Your task to perform on an android device: Add razer kraken to the cart on costco, then select checkout. Image 0: 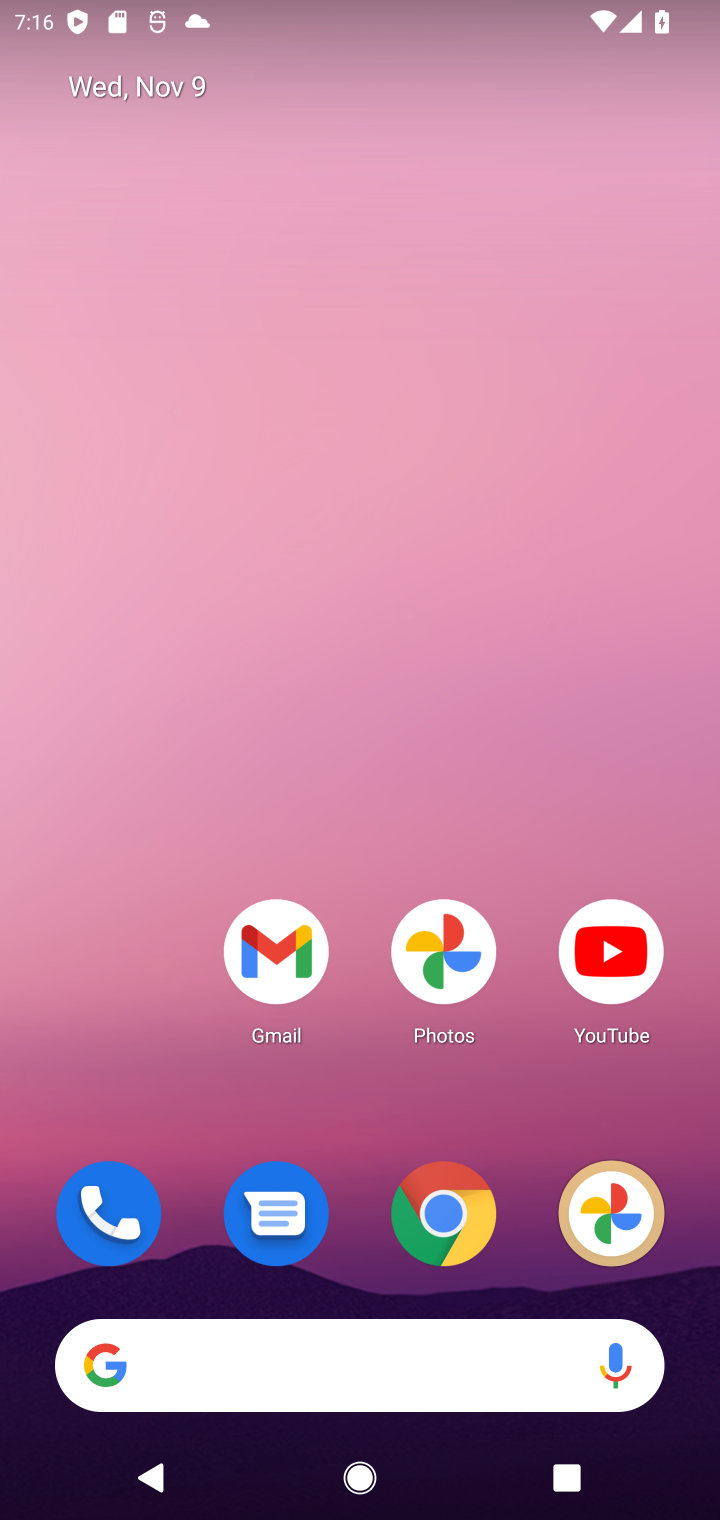
Step 0: click (470, 1213)
Your task to perform on an android device: Add razer kraken to the cart on costco, then select checkout. Image 1: 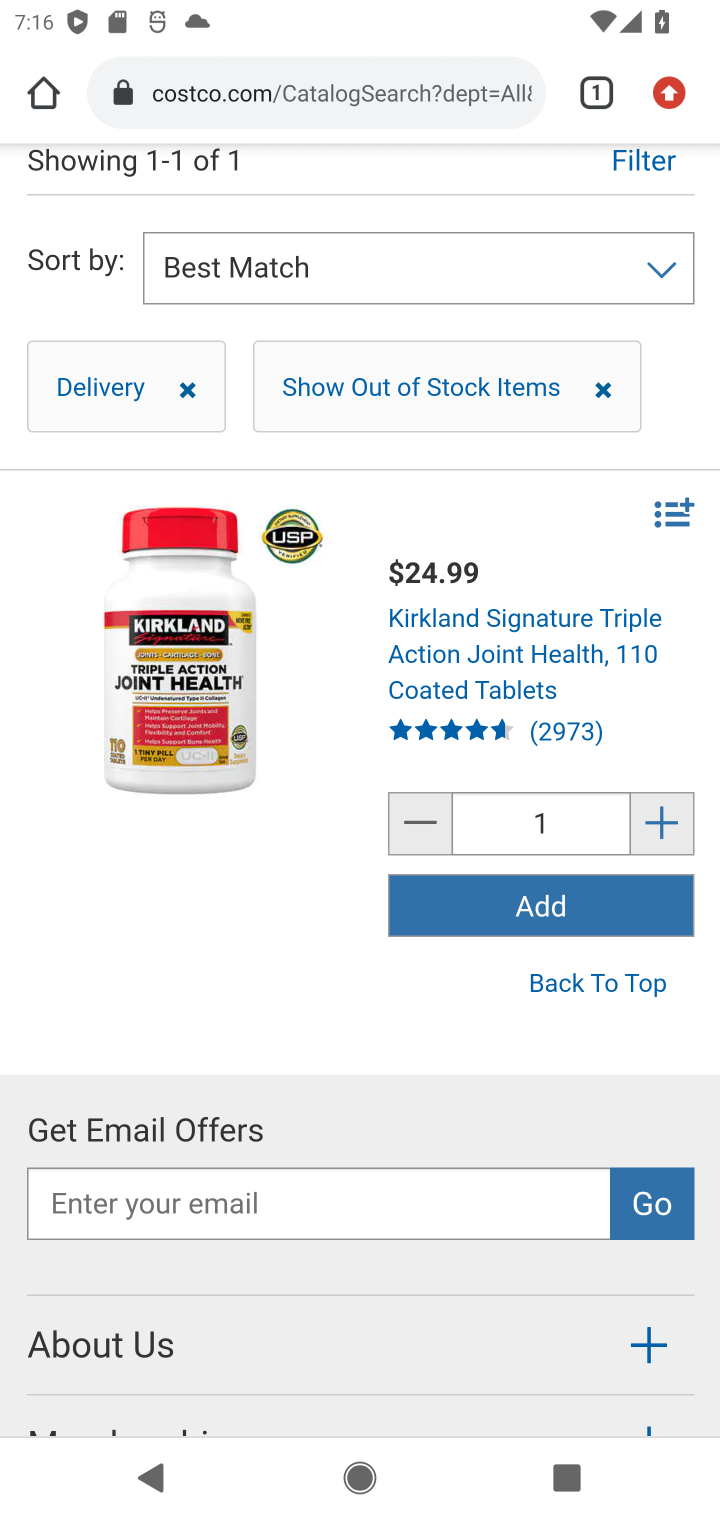
Step 1: click (231, 92)
Your task to perform on an android device: Add razer kraken to the cart on costco, then select checkout. Image 2: 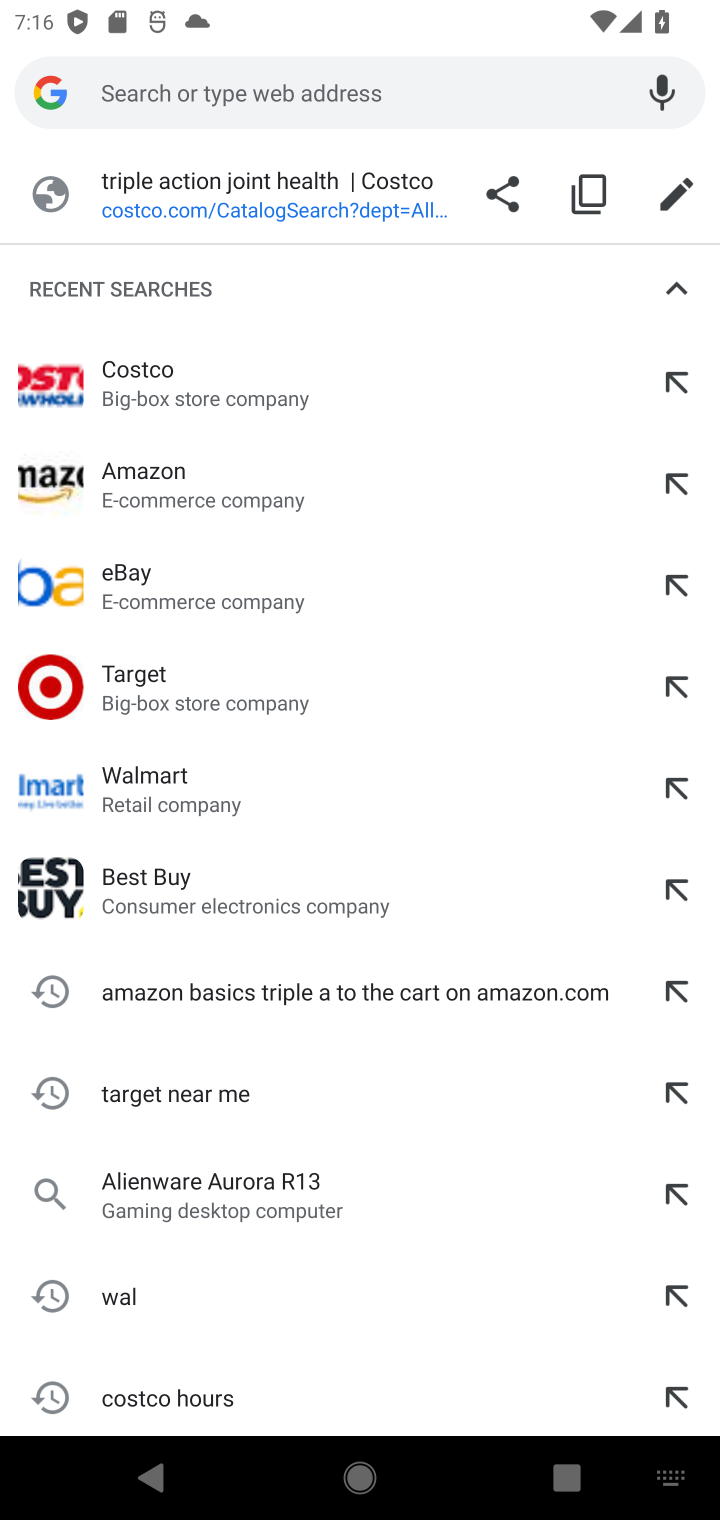
Step 2: type "costco"
Your task to perform on an android device: Add razer kraken to the cart on costco, then select checkout. Image 3: 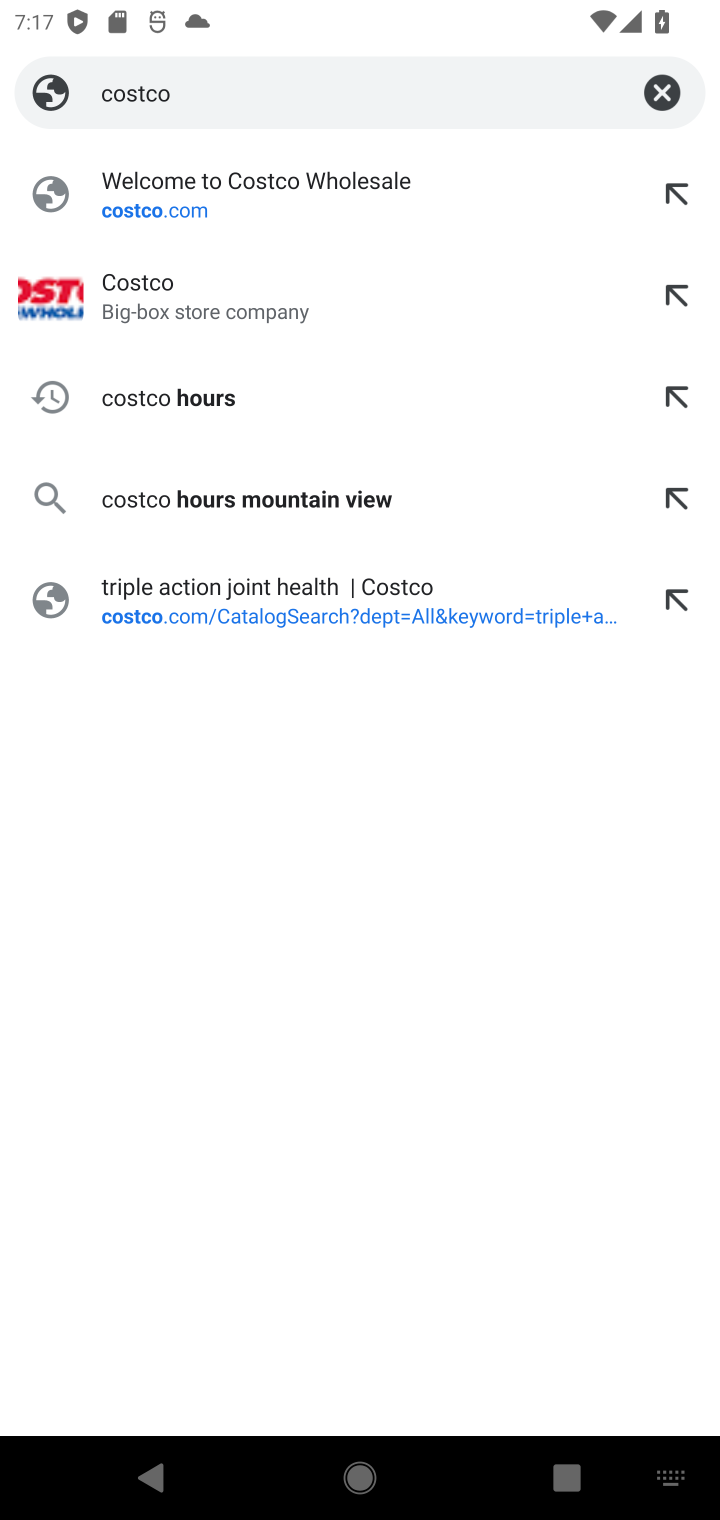
Step 3: click (98, 300)
Your task to perform on an android device: Add razer kraken to the cart on costco, then select checkout. Image 4: 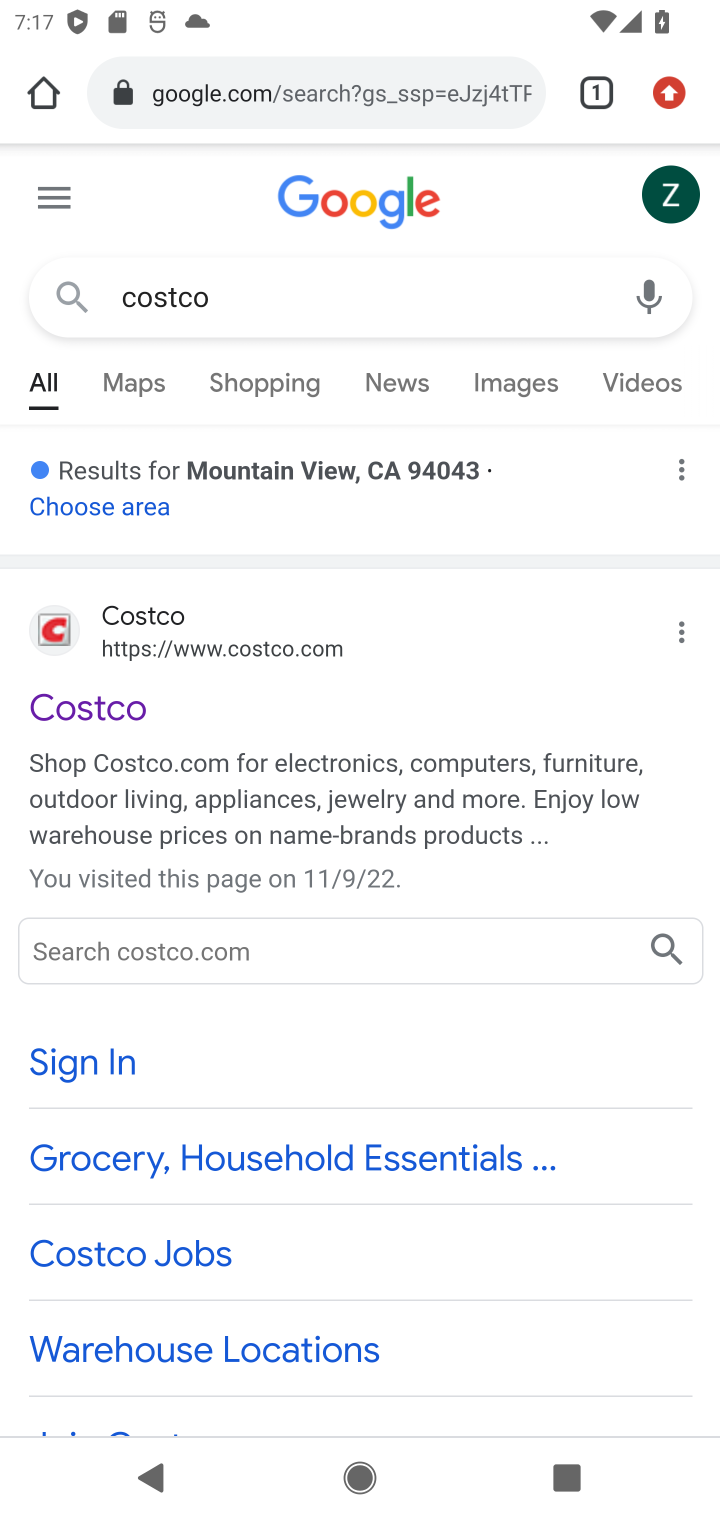
Step 4: click (106, 698)
Your task to perform on an android device: Add razer kraken to the cart on costco, then select checkout. Image 5: 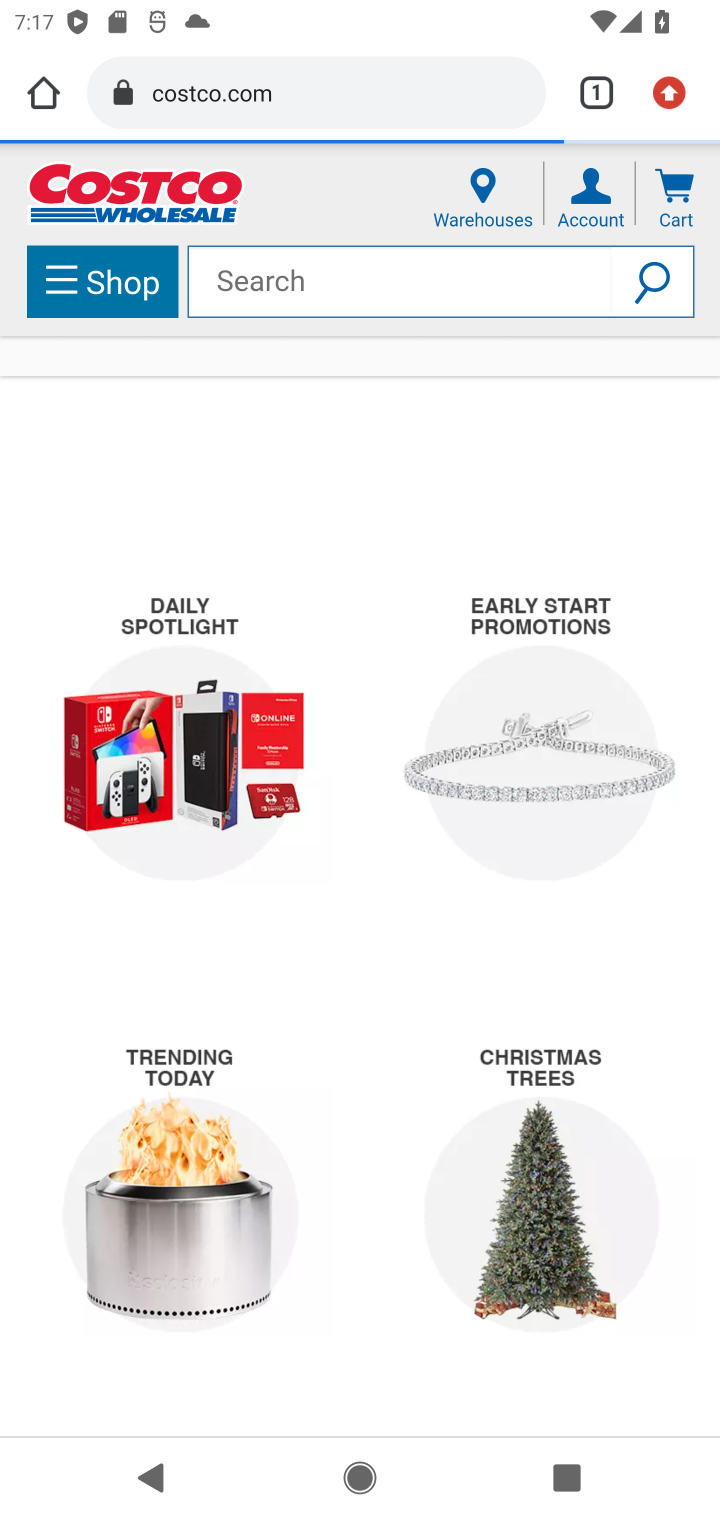
Step 5: click (310, 283)
Your task to perform on an android device: Add razer kraken to the cart on costco, then select checkout. Image 6: 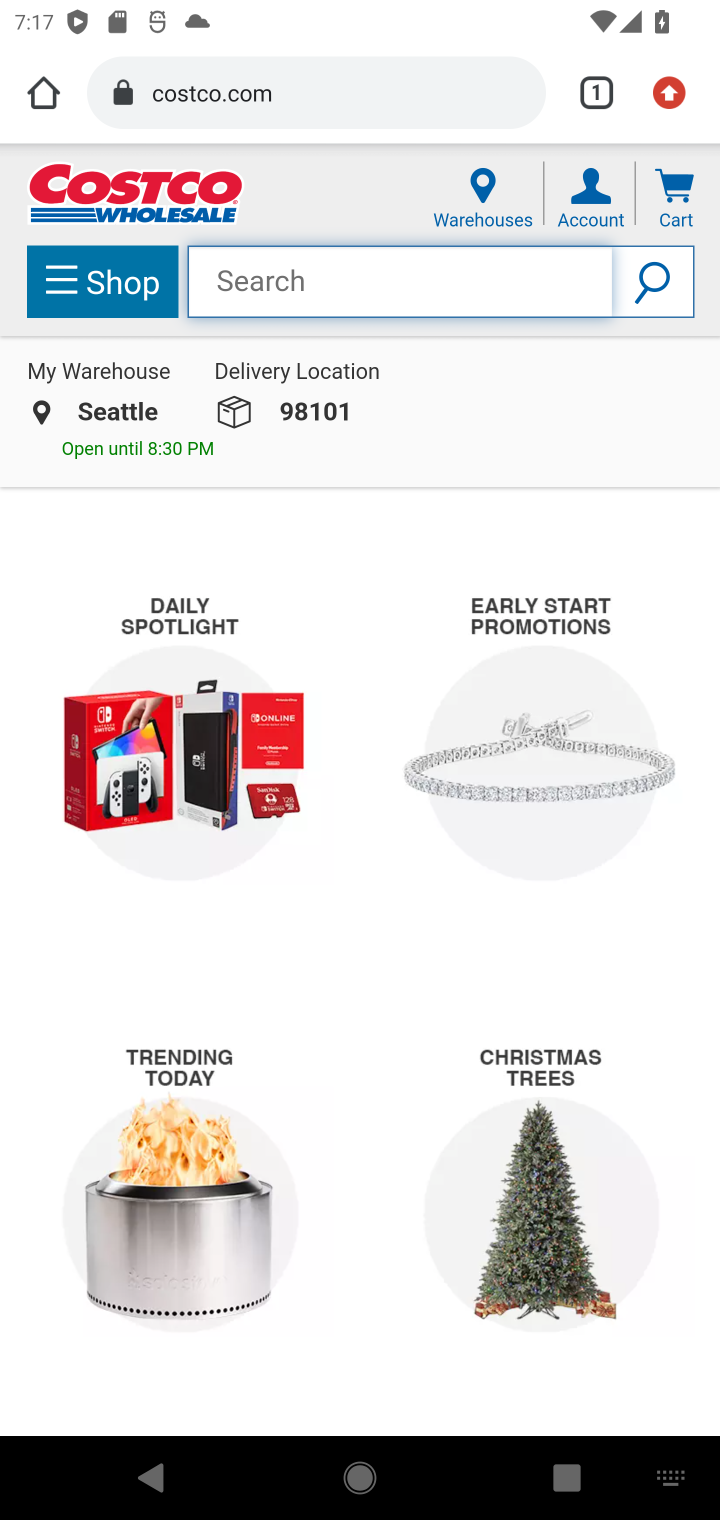
Step 6: type "razer  kraken "
Your task to perform on an android device: Add razer kraken to the cart on costco, then select checkout. Image 7: 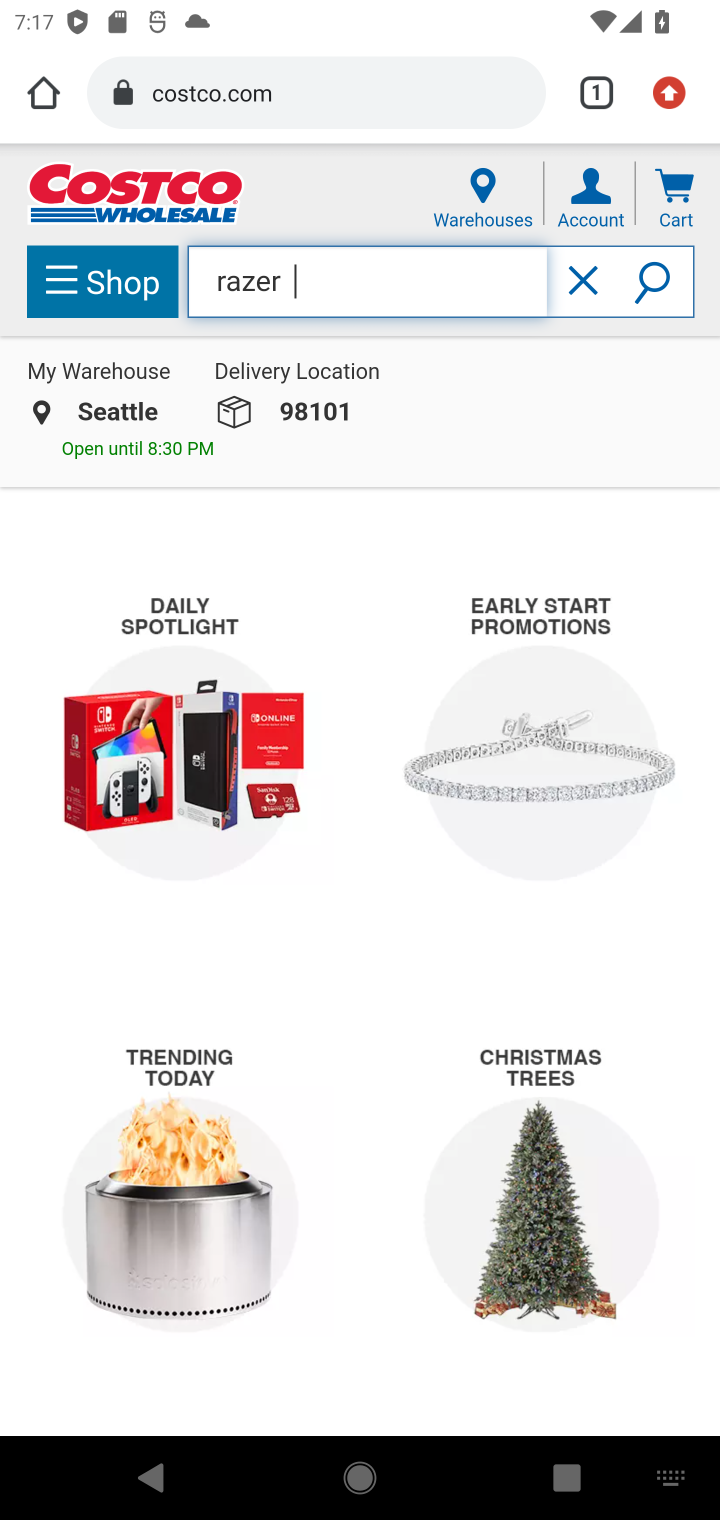
Step 7: type ""
Your task to perform on an android device: Add razer kraken to the cart on costco, then select checkout. Image 8: 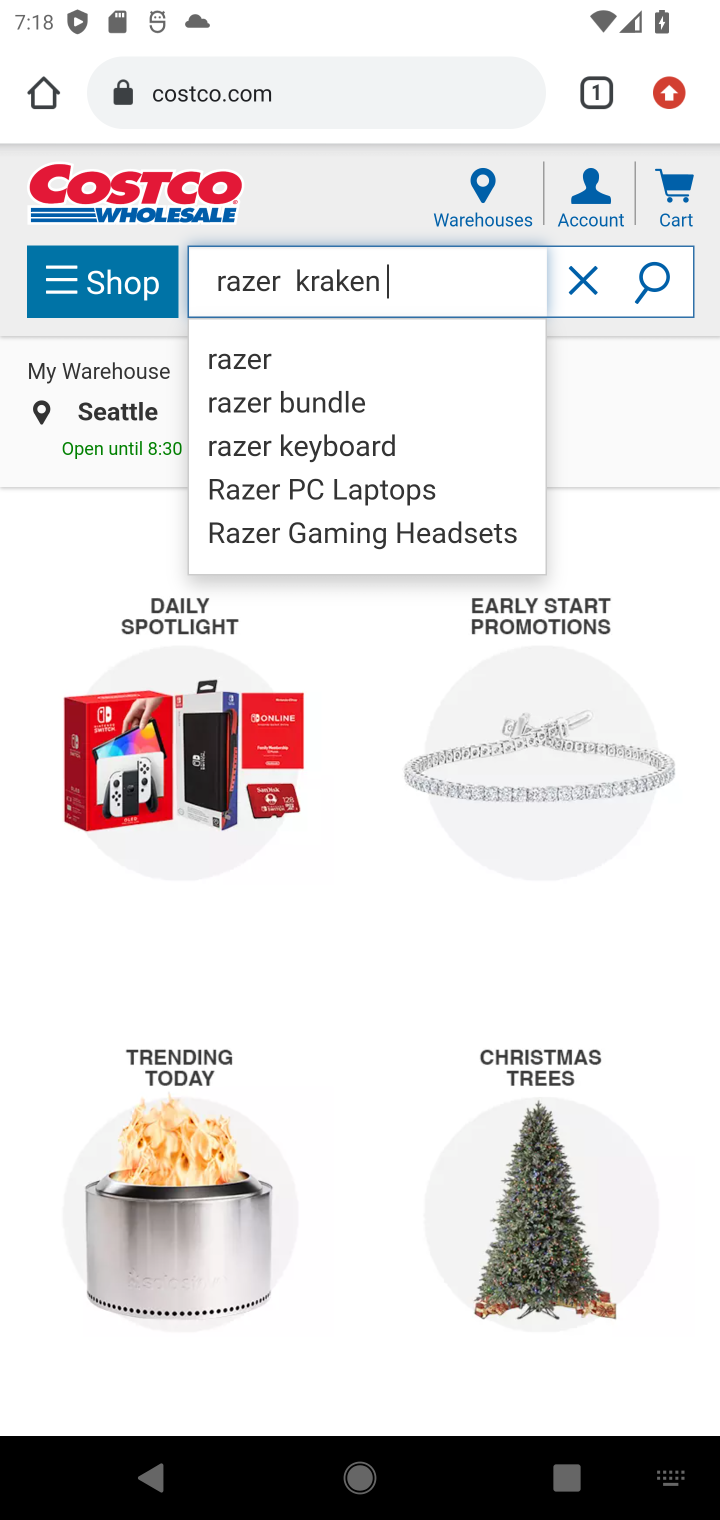
Step 8: click (231, 351)
Your task to perform on an android device: Add razer kraken to the cart on costco, then select checkout. Image 9: 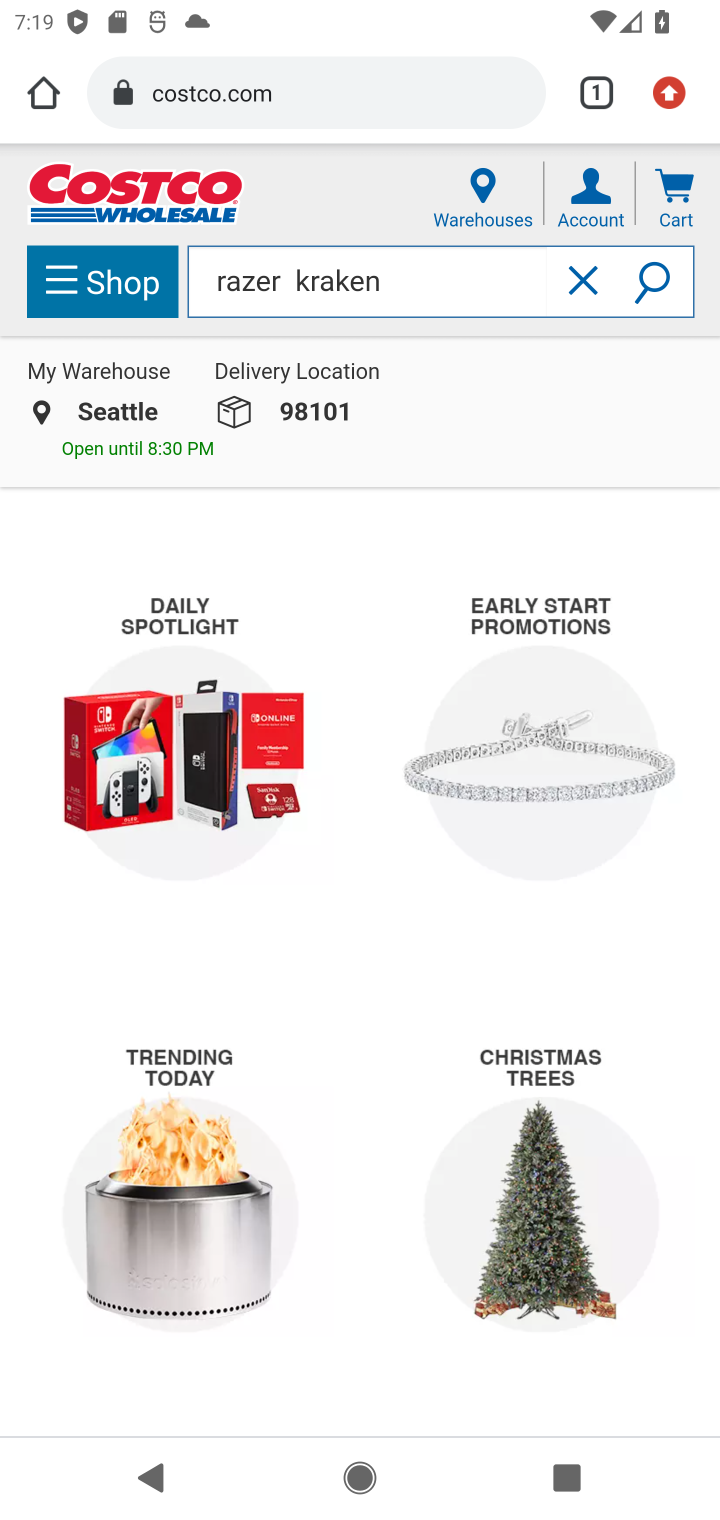
Step 9: click (684, 275)
Your task to perform on an android device: Add razer kraken to the cart on costco, then select checkout. Image 10: 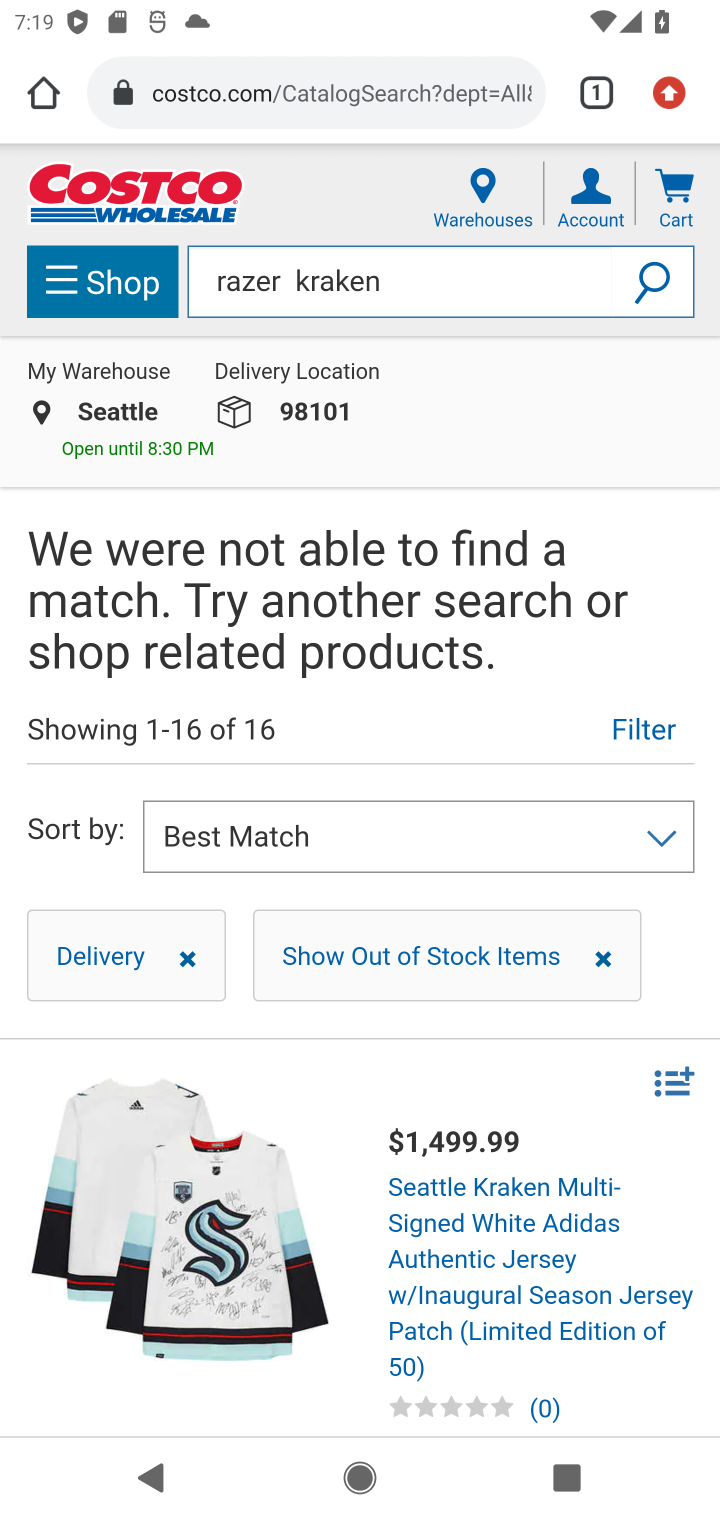
Step 10: drag from (399, 1263) to (382, 677)
Your task to perform on an android device: Add razer kraken to the cart on costco, then select checkout. Image 11: 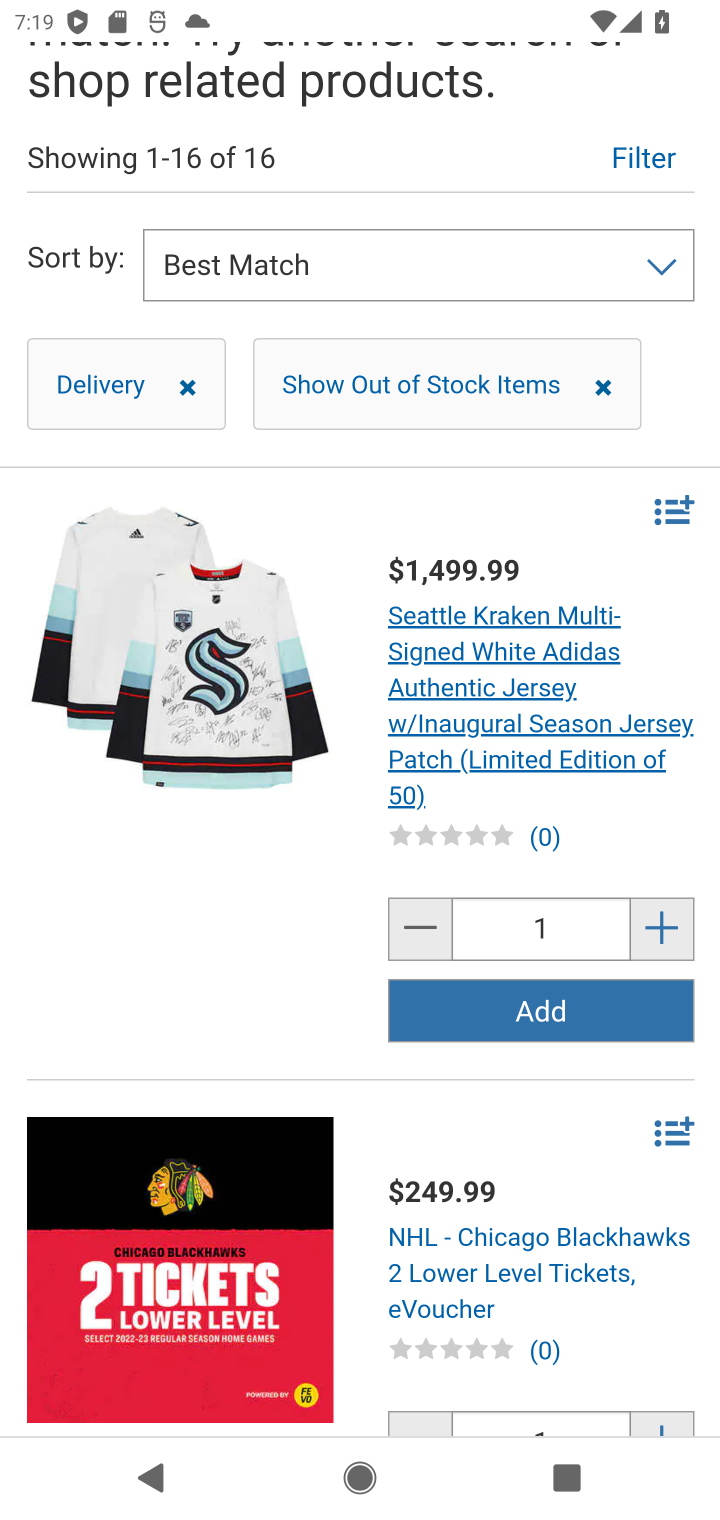
Step 11: click (315, 255)
Your task to perform on an android device: Add razer kraken to the cart on costco, then select checkout. Image 12: 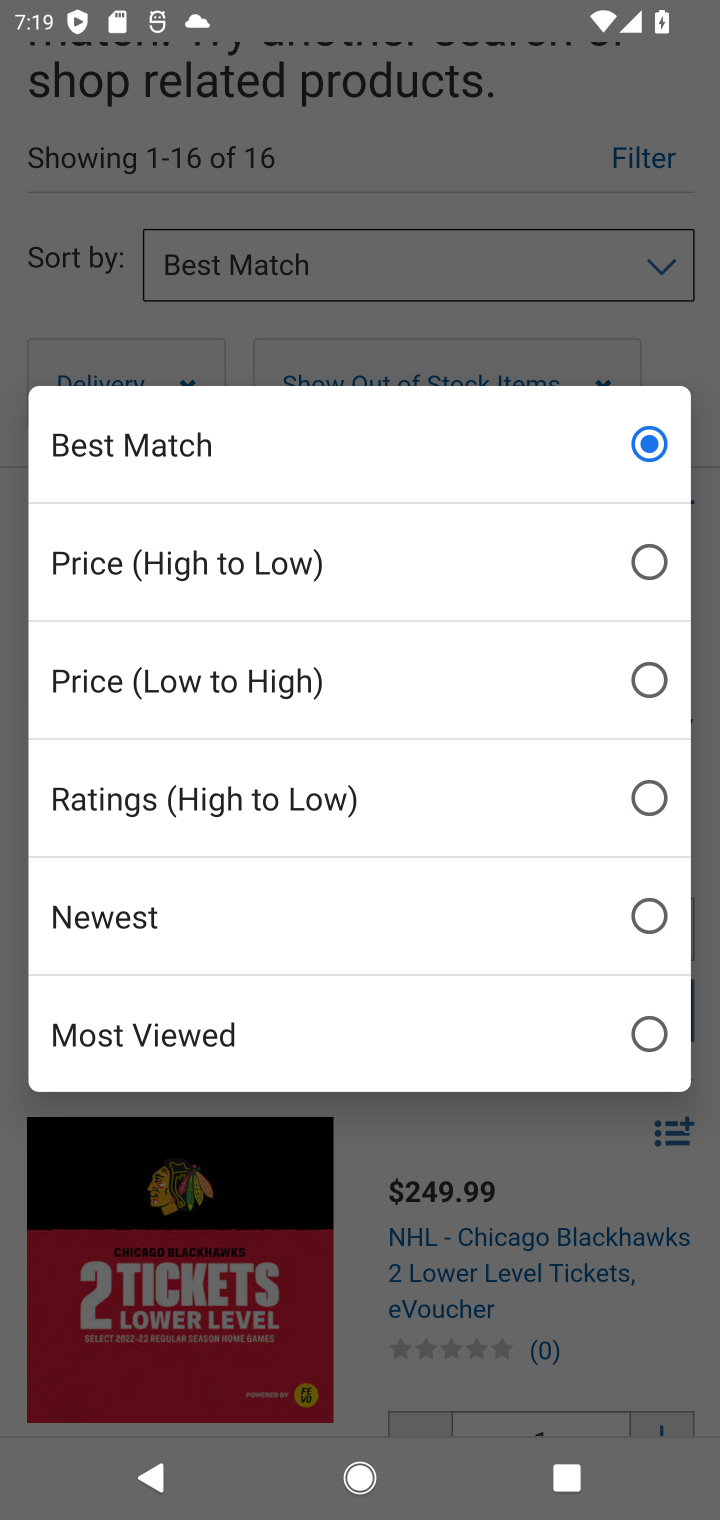
Step 12: click (364, 265)
Your task to perform on an android device: Add razer kraken to the cart on costco, then select checkout. Image 13: 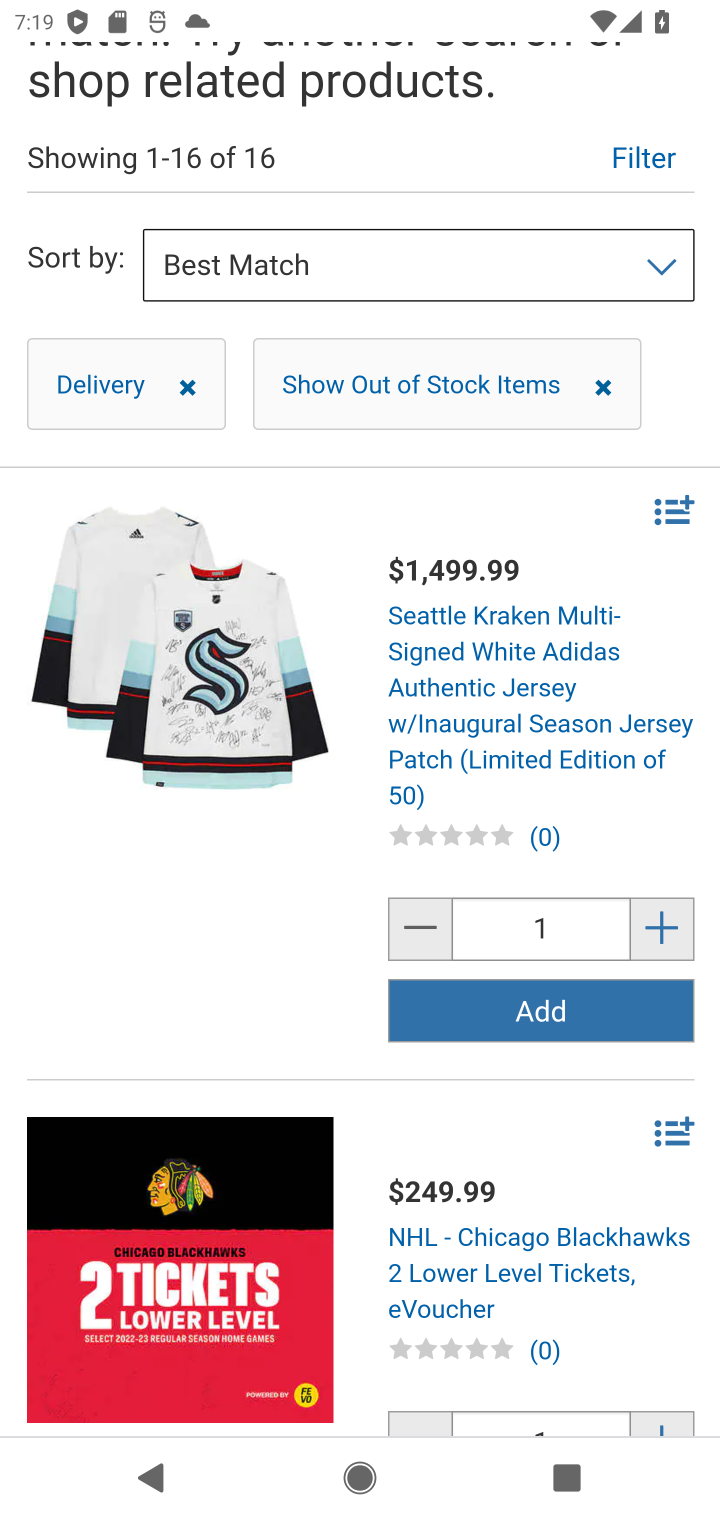
Step 13: press back button
Your task to perform on an android device: Add razer kraken to the cart on costco, then select checkout. Image 14: 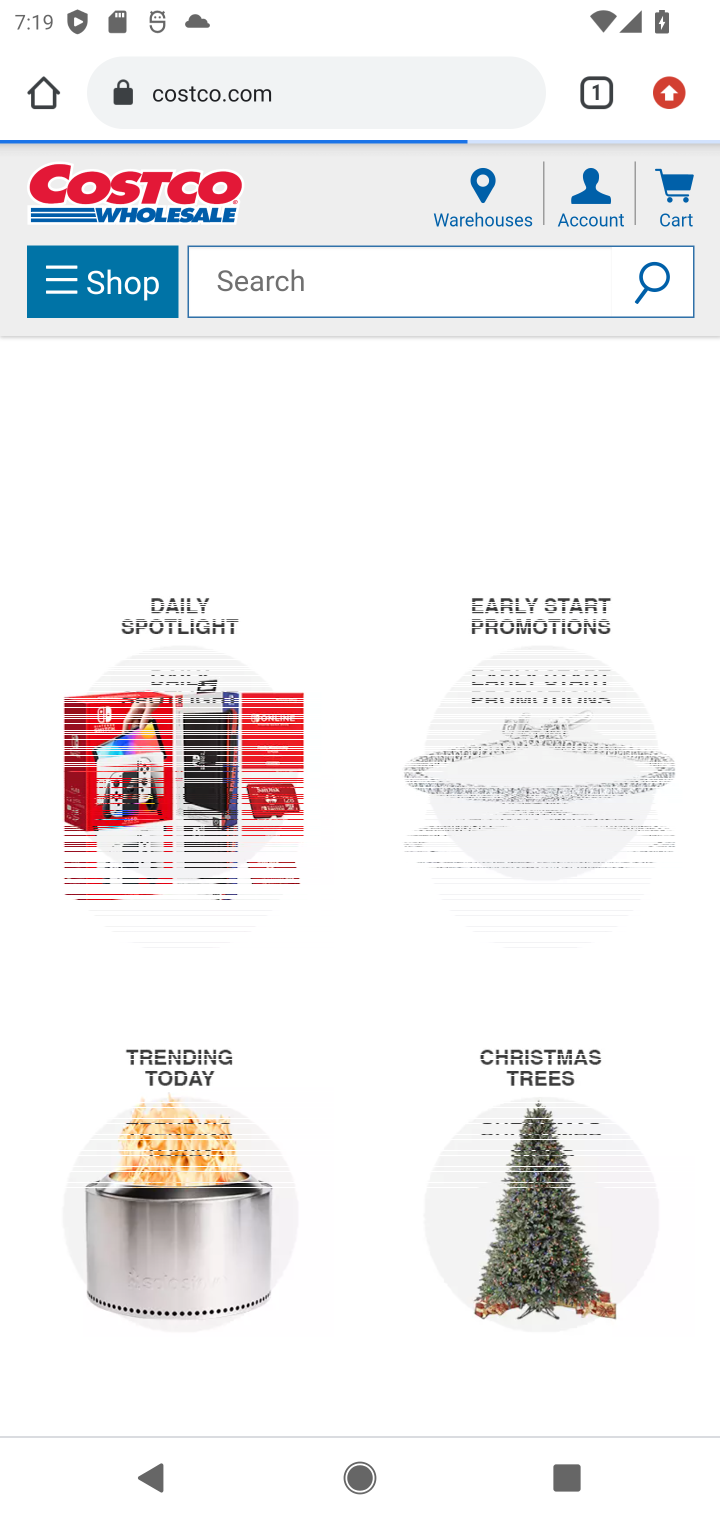
Step 14: click (274, 273)
Your task to perform on an android device: Add razer kraken to the cart on costco, then select checkout. Image 15: 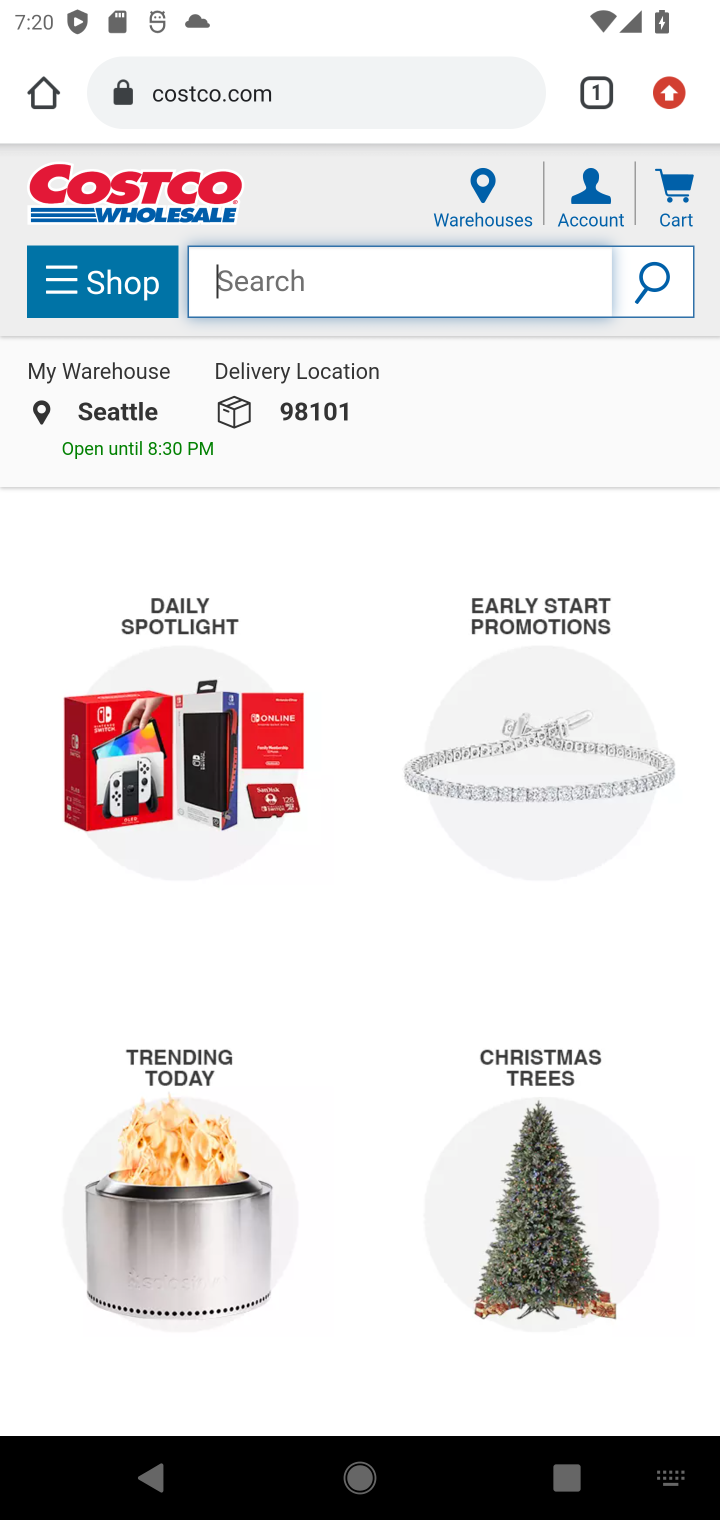
Step 15: type "razer kraken"
Your task to perform on an android device: Add razer kraken to the cart on costco, then select checkout. Image 16: 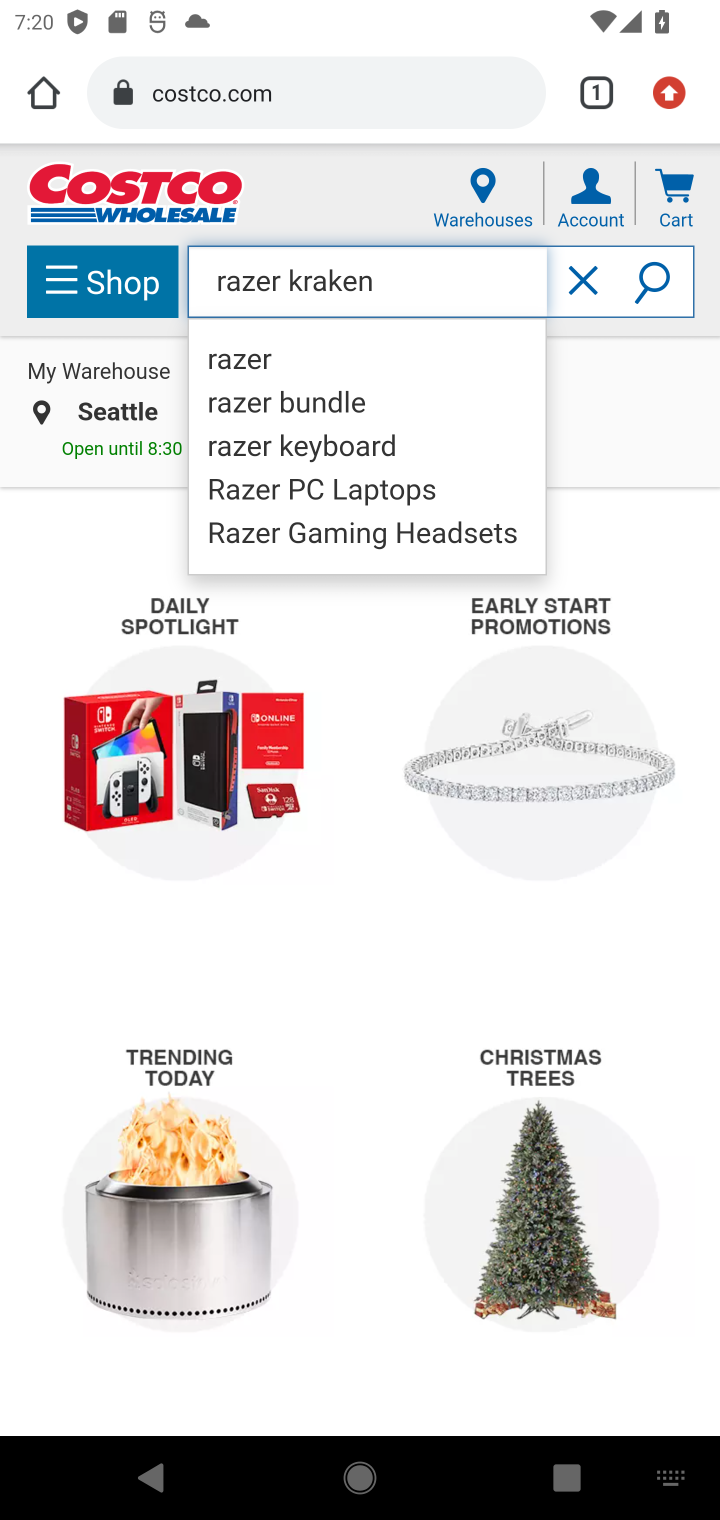
Step 16: click (240, 358)
Your task to perform on an android device: Add razer kraken to the cart on costco, then select checkout. Image 17: 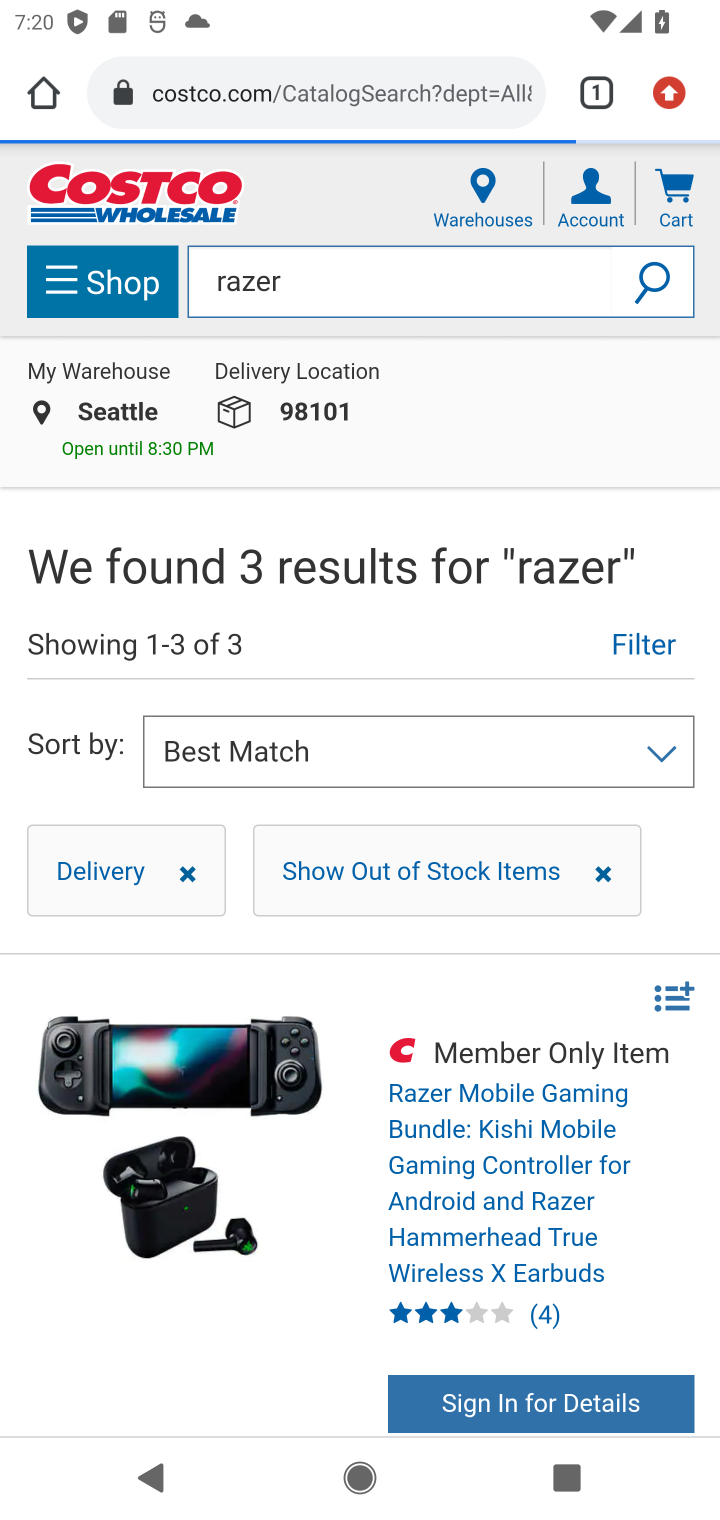
Step 17: drag from (435, 1165) to (428, 714)
Your task to perform on an android device: Add razer kraken to the cart on costco, then select checkout. Image 18: 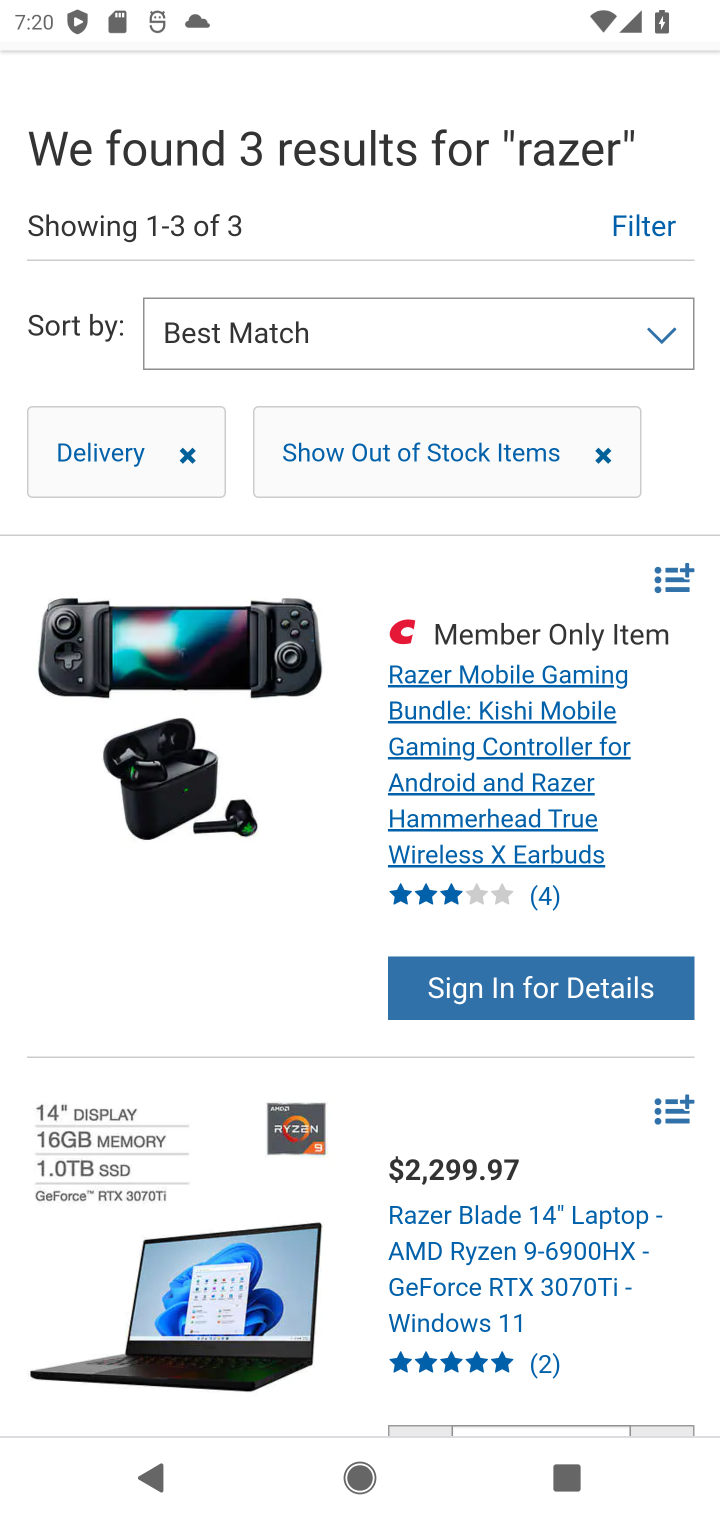
Step 18: click (434, 1216)
Your task to perform on an android device: Add razer kraken to the cart on costco, then select checkout. Image 19: 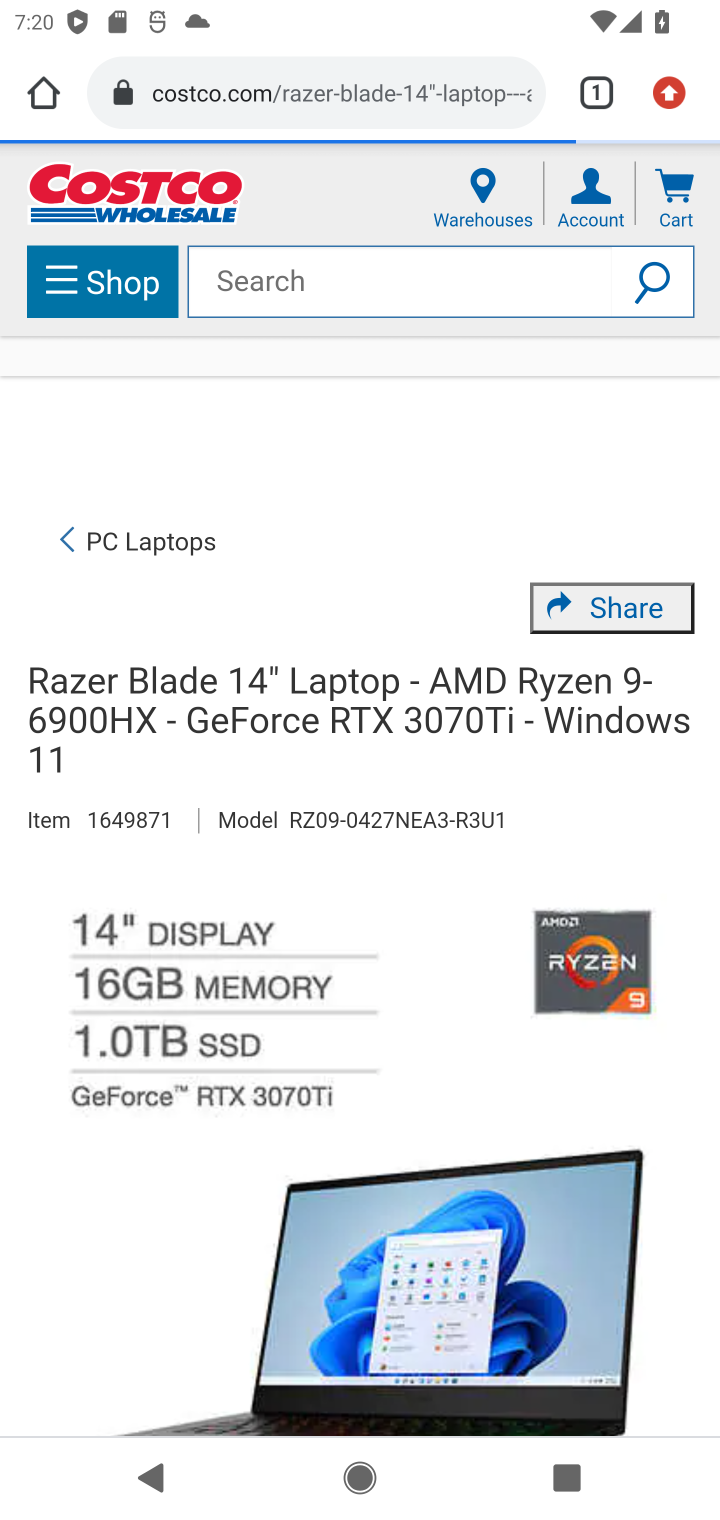
Step 19: drag from (174, 1165) to (247, 661)
Your task to perform on an android device: Add razer kraken to the cart on costco, then select checkout. Image 20: 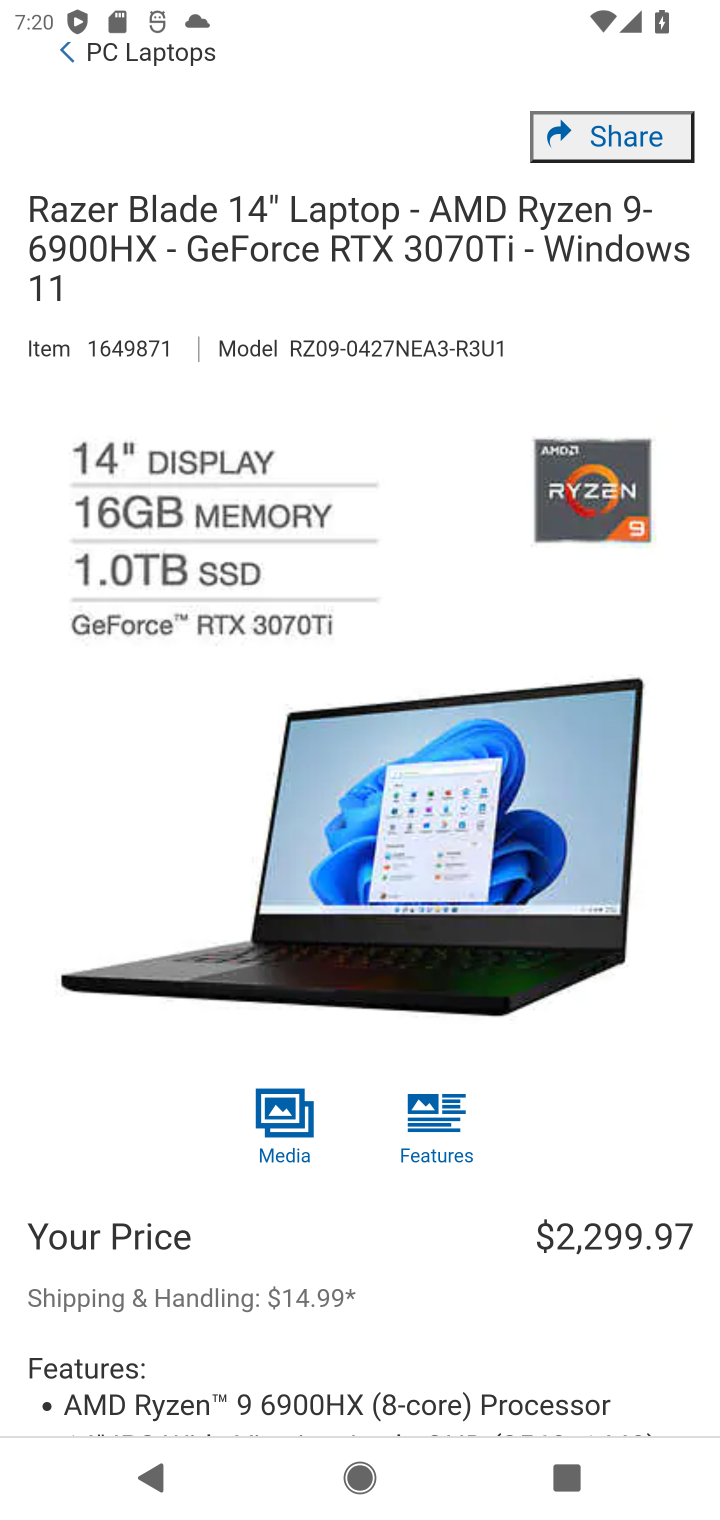
Step 20: drag from (170, 1182) to (258, 692)
Your task to perform on an android device: Add razer kraken to the cart on costco, then select checkout. Image 21: 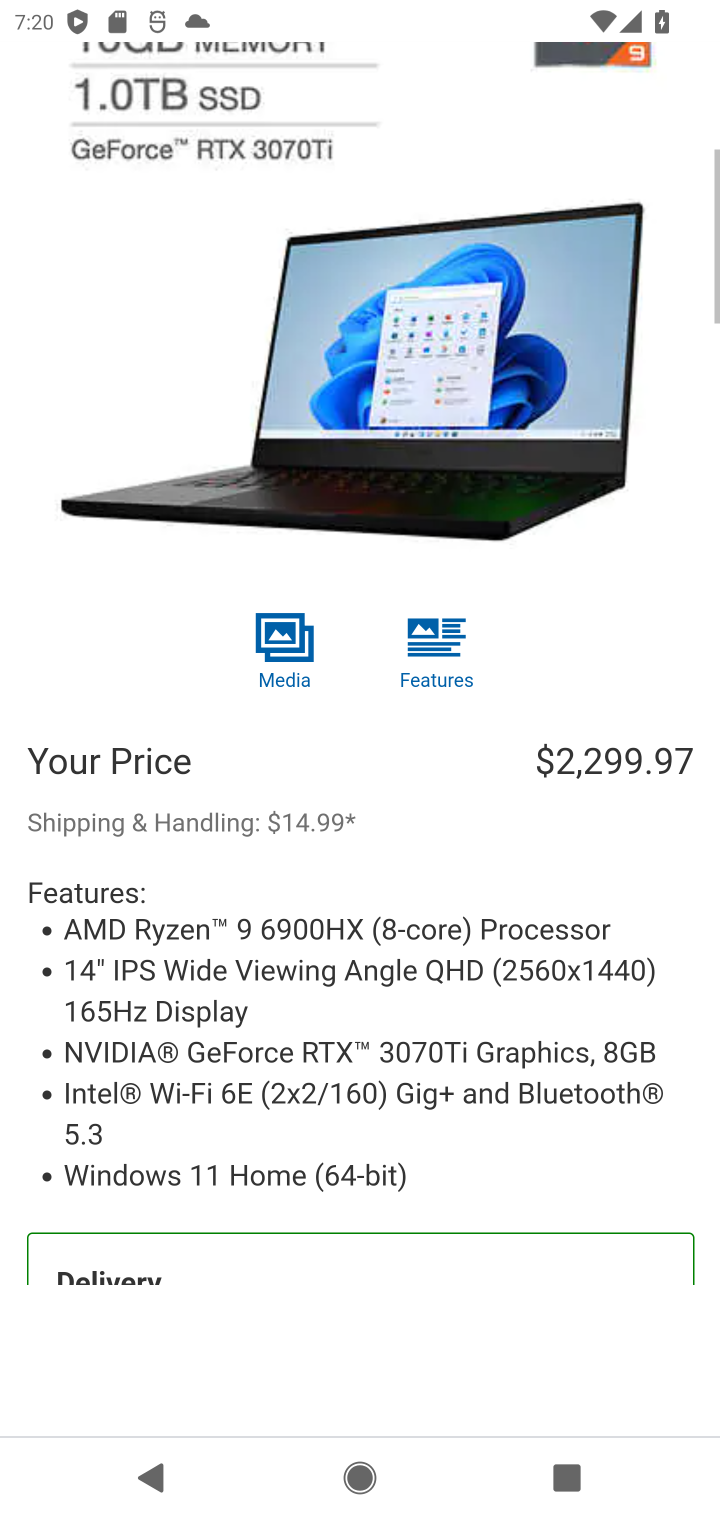
Step 21: drag from (266, 1170) to (278, 644)
Your task to perform on an android device: Add razer kraken to the cart on costco, then select checkout. Image 22: 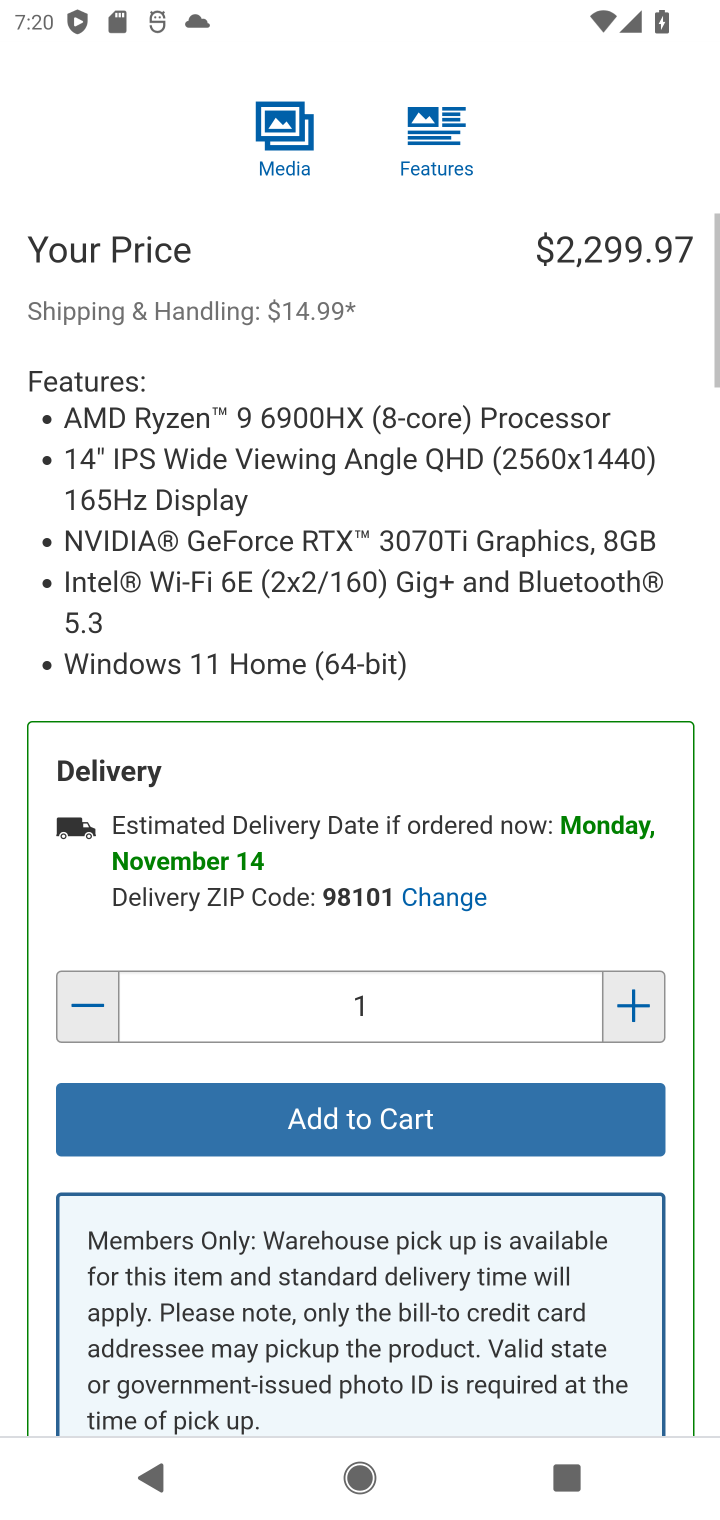
Step 22: drag from (182, 1089) to (314, 607)
Your task to perform on an android device: Add razer kraken to the cart on costco, then select checkout. Image 23: 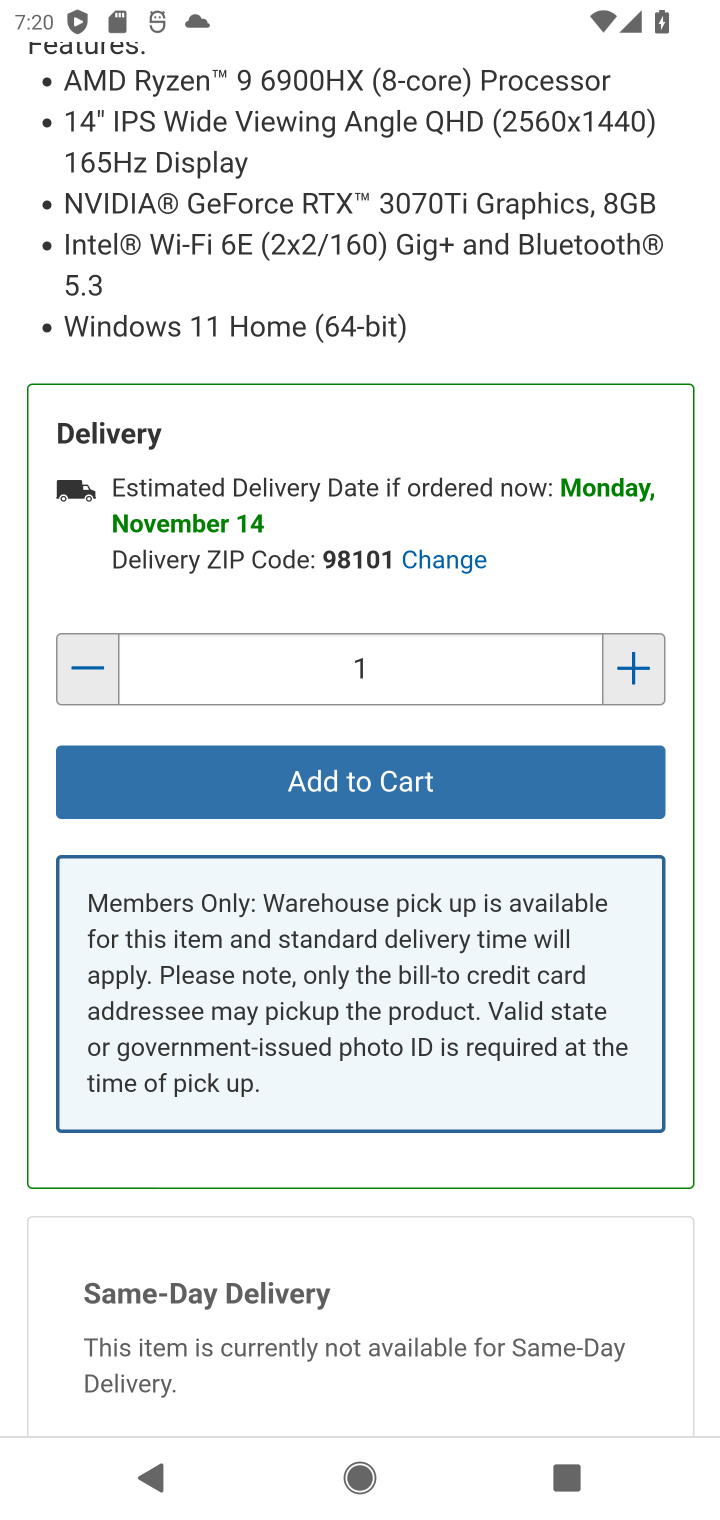
Step 23: click (333, 790)
Your task to perform on an android device: Add razer kraken to the cart on costco, then select checkout. Image 24: 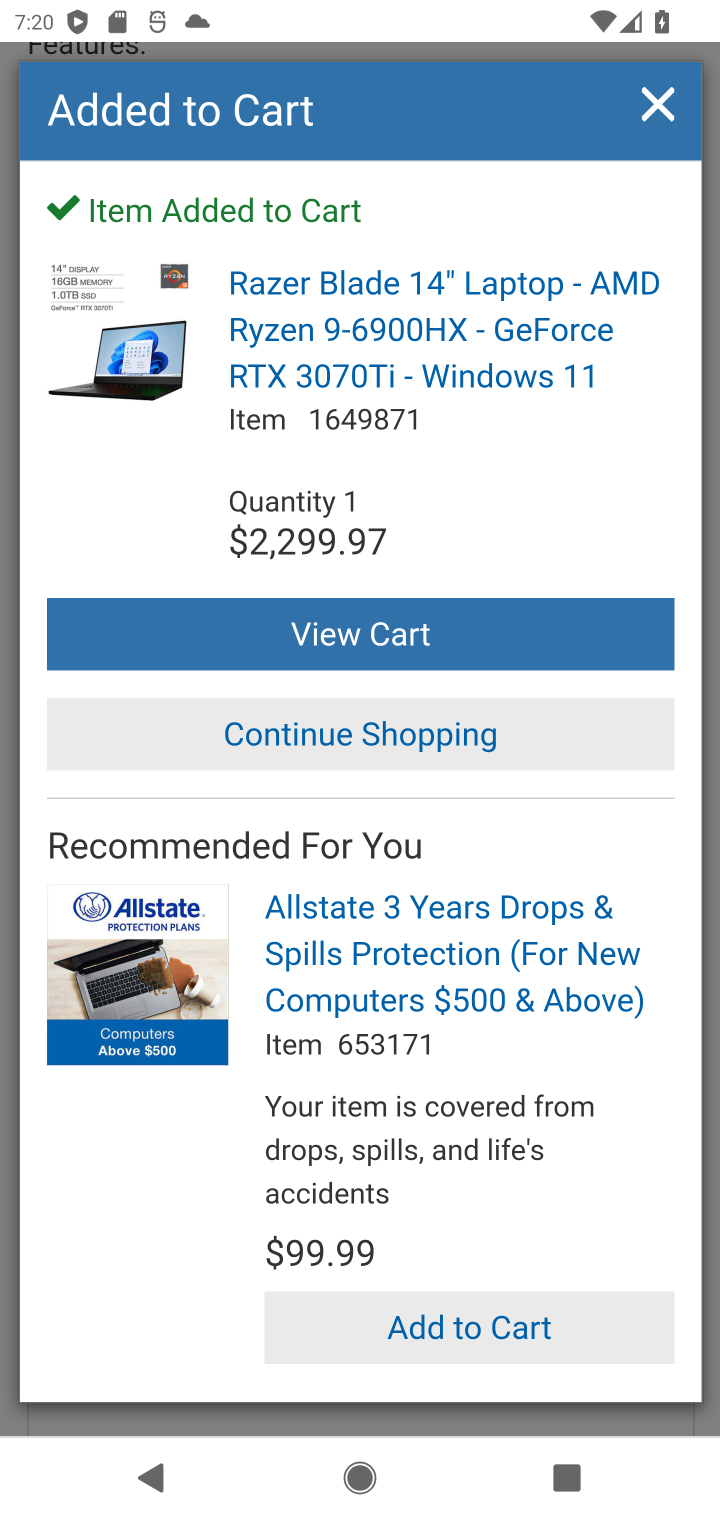
Step 24: click (392, 644)
Your task to perform on an android device: Add razer kraken to the cart on costco, then select checkout. Image 25: 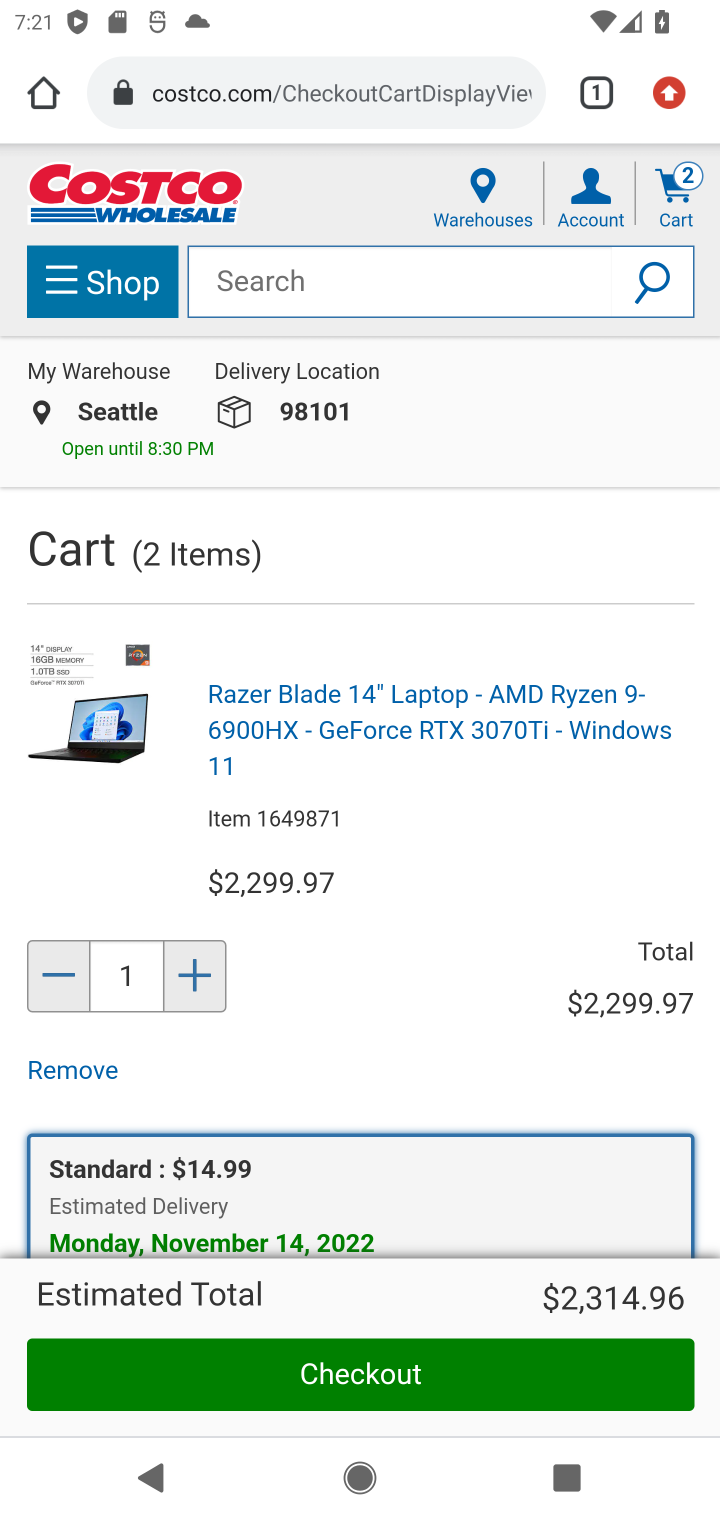
Step 25: click (459, 1357)
Your task to perform on an android device: Add razer kraken to the cart on costco, then select checkout. Image 26: 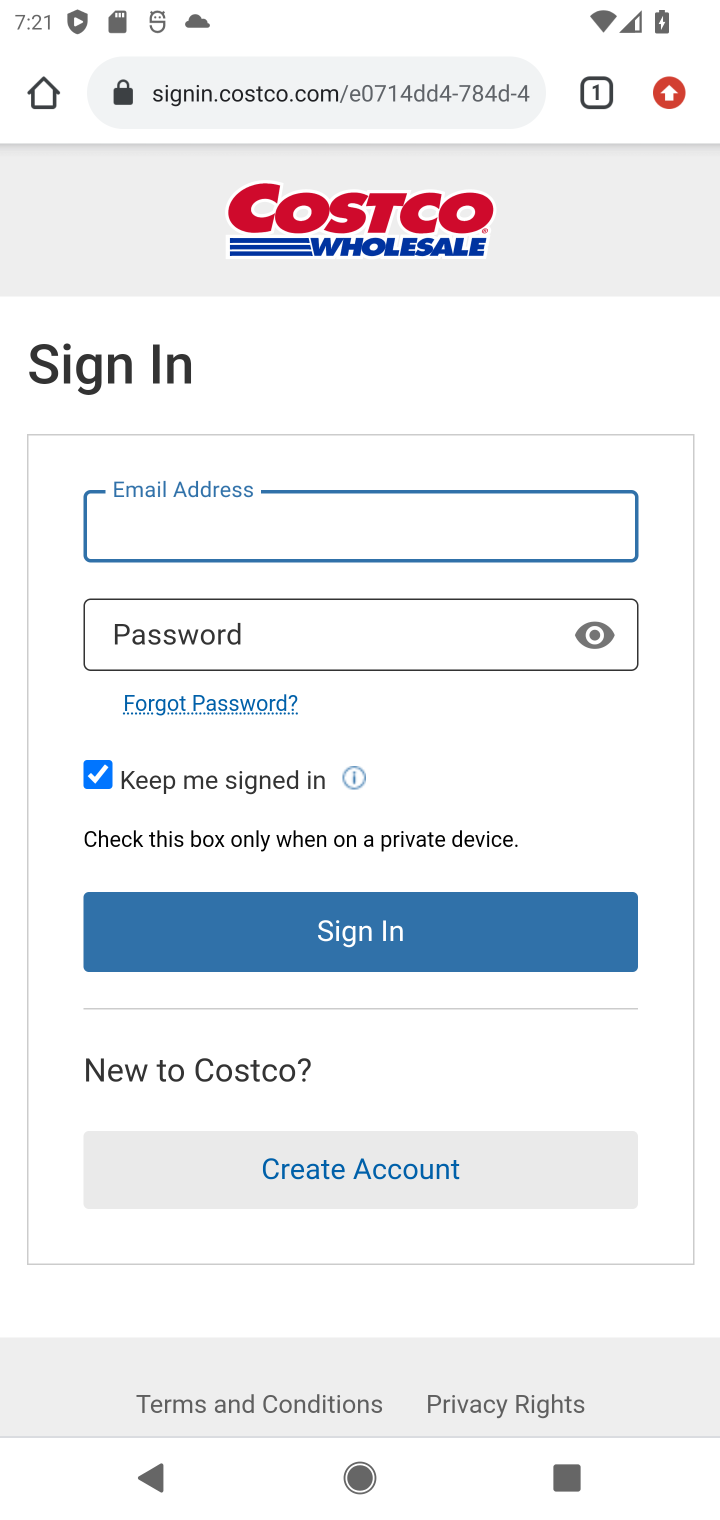
Step 26: task complete